Your task to perform on an android device: change the clock display to digital Image 0: 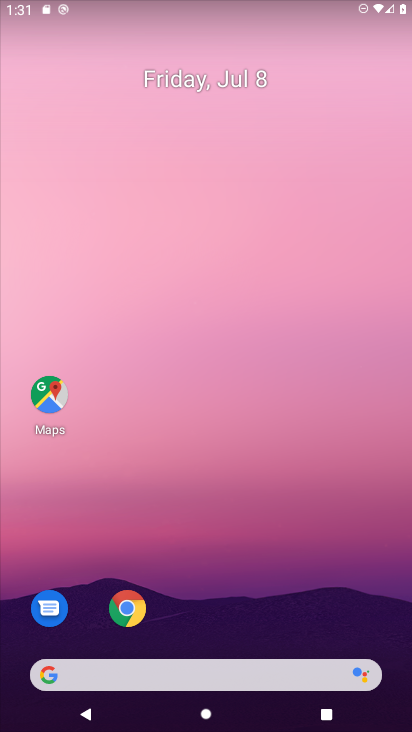
Step 0: drag from (306, 618) to (214, 108)
Your task to perform on an android device: change the clock display to digital Image 1: 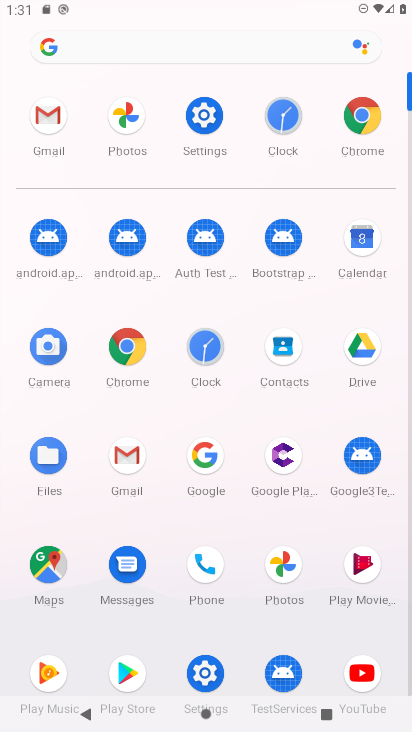
Step 1: click (211, 117)
Your task to perform on an android device: change the clock display to digital Image 2: 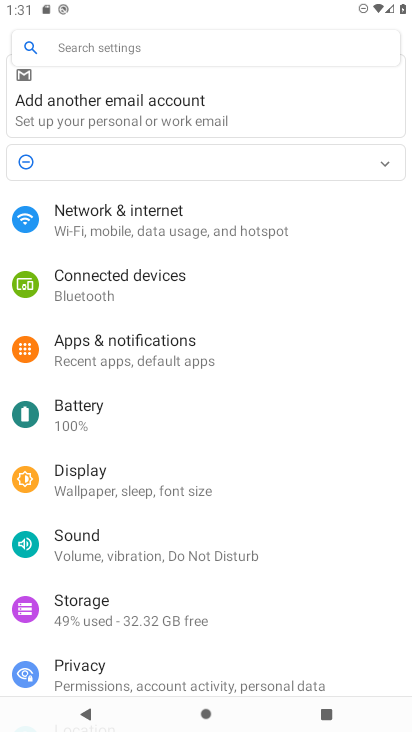
Step 2: press home button
Your task to perform on an android device: change the clock display to digital Image 3: 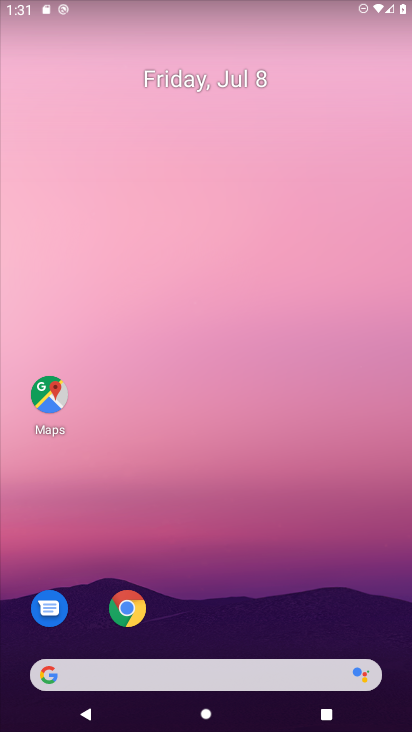
Step 3: drag from (345, 592) to (19, 0)
Your task to perform on an android device: change the clock display to digital Image 4: 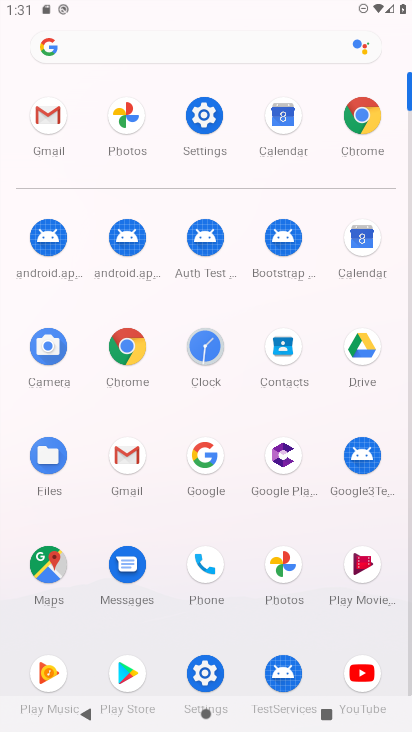
Step 4: click (201, 157)
Your task to perform on an android device: change the clock display to digital Image 5: 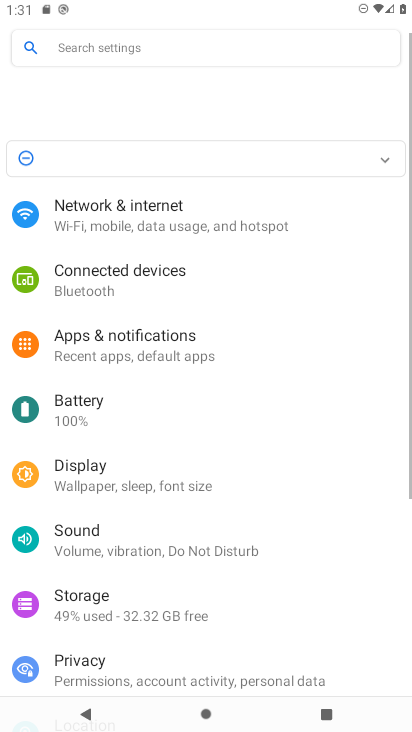
Step 5: press home button
Your task to perform on an android device: change the clock display to digital Image 6: 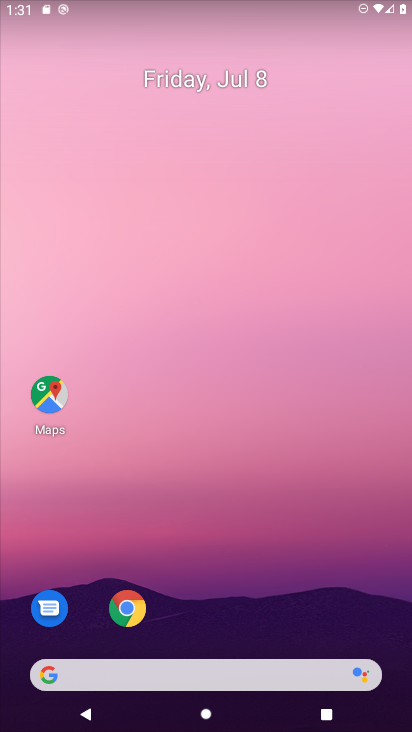
Step 6: drag from (256, 545) to (253, 200)
Your task to perform on an android device: change the clock display to digital Image 7: 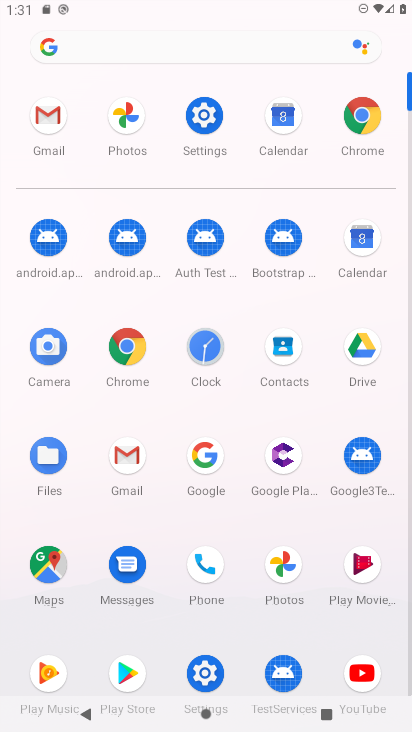
Step 7: click (202, 362)
Your task to perform on an android device: change the clock display to digital Image 8: 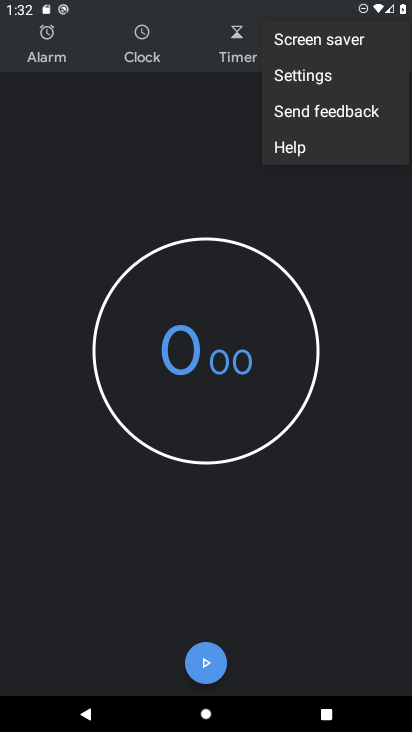
Step 8: click (273, 75)
Your task to perform on an android device: change the clock display to digital Image 9: 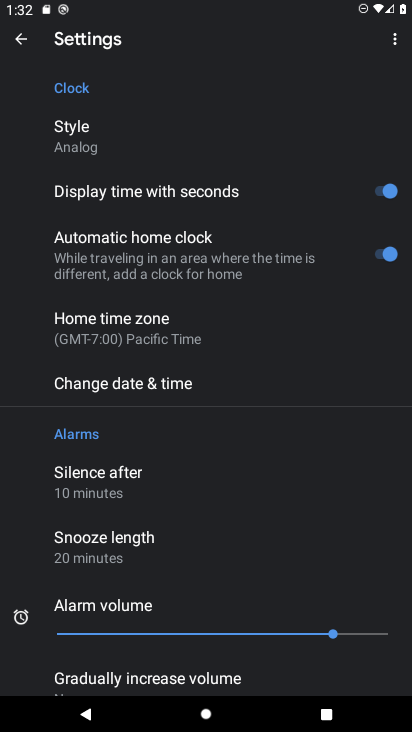
Step 9: click (226, 147)
Your task to perform on an android device: change the clock display to digital Image 10: 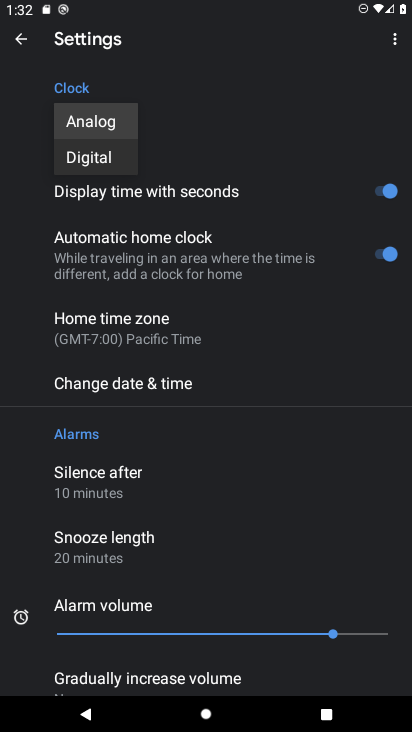
Step 10: click (107, 164)
Your task to perform on an android device: change the clock display to digital Image 11: 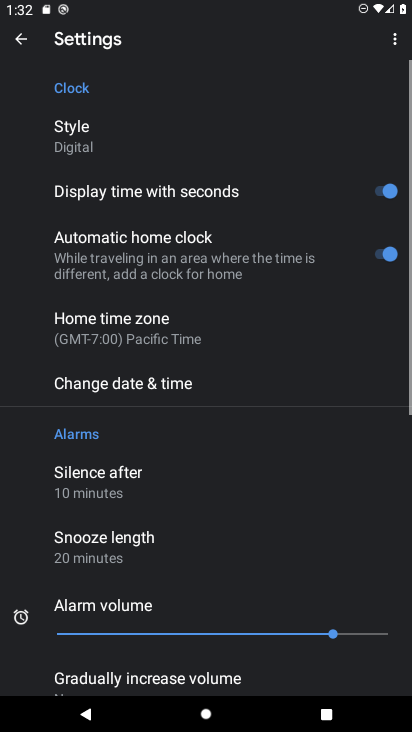
Step 11: task complete